Your task to perform on an android device: Open calendar and show me the first week of next month Image 0: 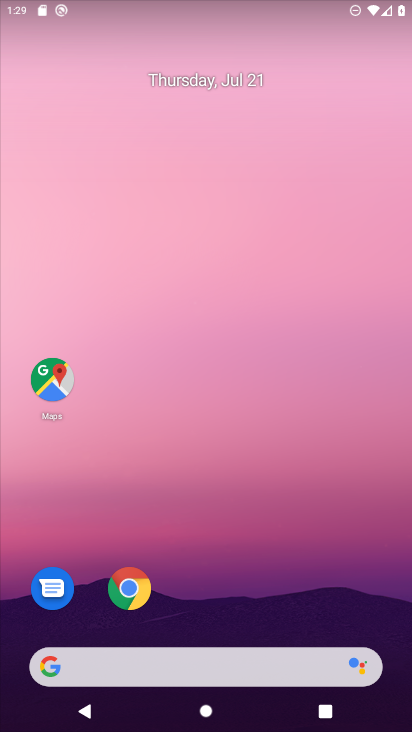
Step 0: click (218, 66)
Your task to perform on an android device: Open calendar and show me the first week of next month Image 1: 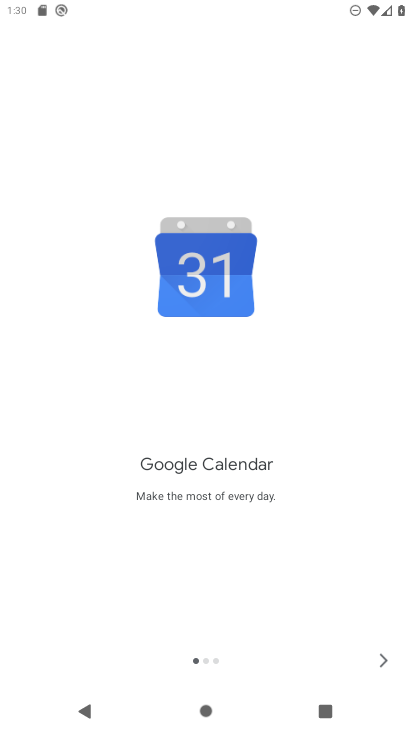
Step 1: click (393, 659)
Your task to perform on an android device: Open calendar and show me the first week of next month Image 2: 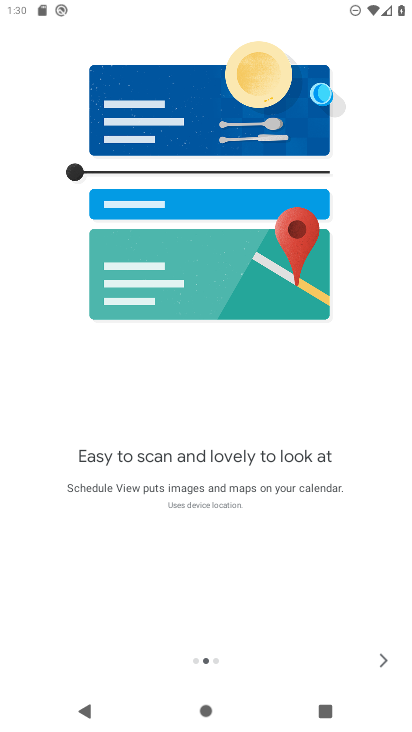
Step 2: click (389, 659)
Your task to perform on an android device: Open calendar and show me the first week of next month Image 3: 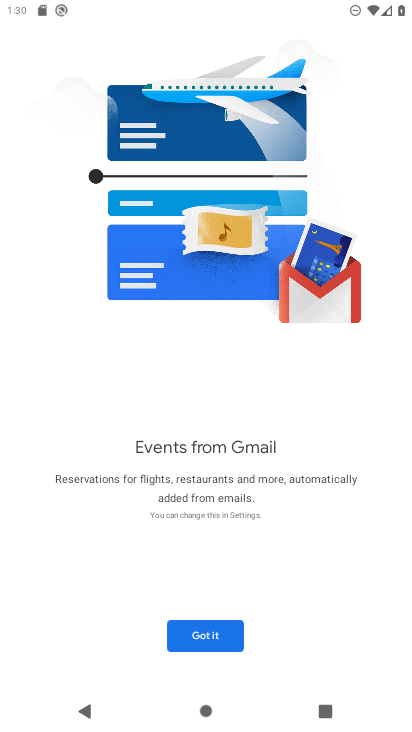
Step 3: click (389, 659)
Your task to perform on an android device: Open calendar and show me the first week of next month Image 4: 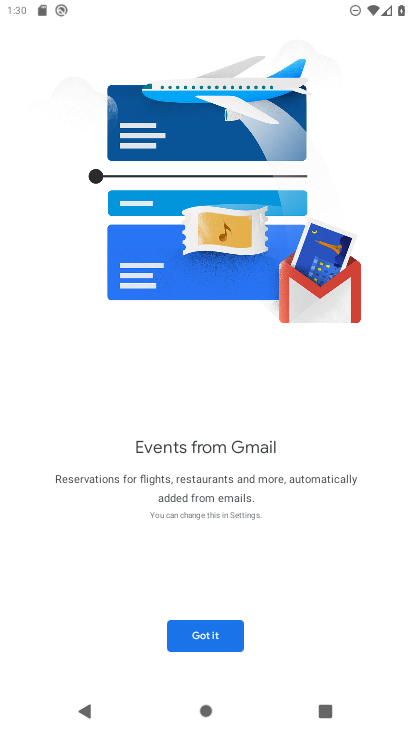
Step 4: click (224, 628)
Your task to perform on an android device: Open calendar and show me the first week of next month Image 5: 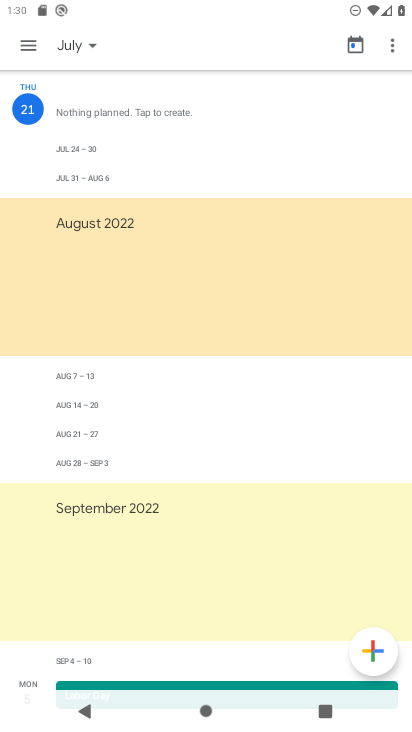
Step 5: click (72, 40)
Your task to perform on an android device: Open calendar and show me the first week of next month Image 6: 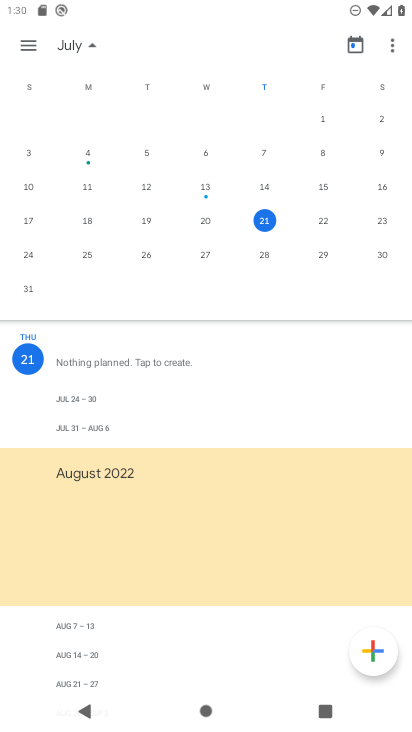
Step 6: drag from (244, 204) to (27, 173)
Your task to perform on an android device: Open calendar and show me the first week of next month Image 7: 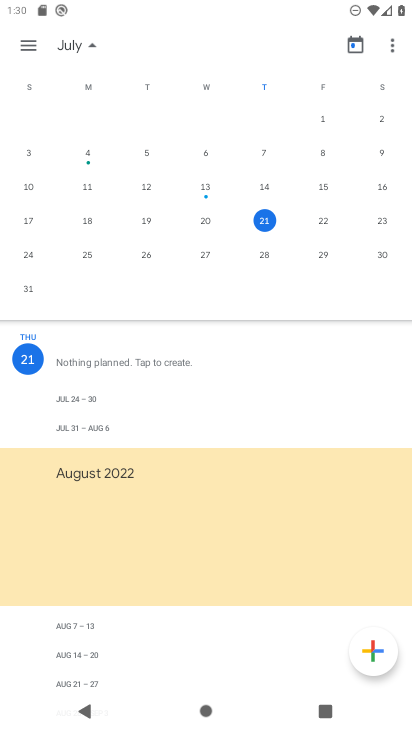
Step 7: drag from (351, 203) to (26, 190)
Your task to perform on an android device: Open calendar and show me the first week of next month Image 8: 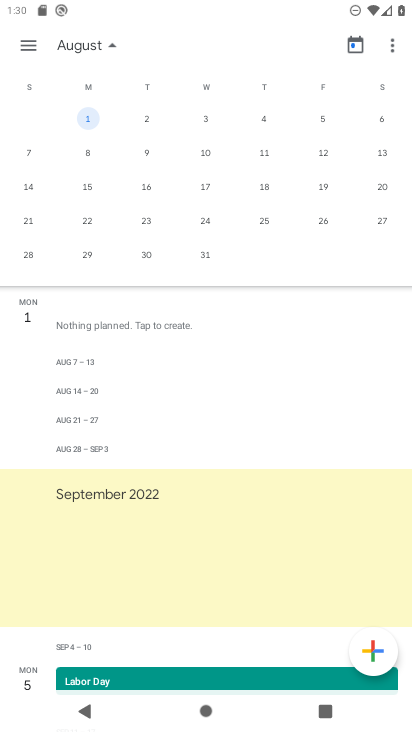
Step 8: click (145, 118)
Your task to perform on an android device: Open calendar and show me the first week of next month Image 9: 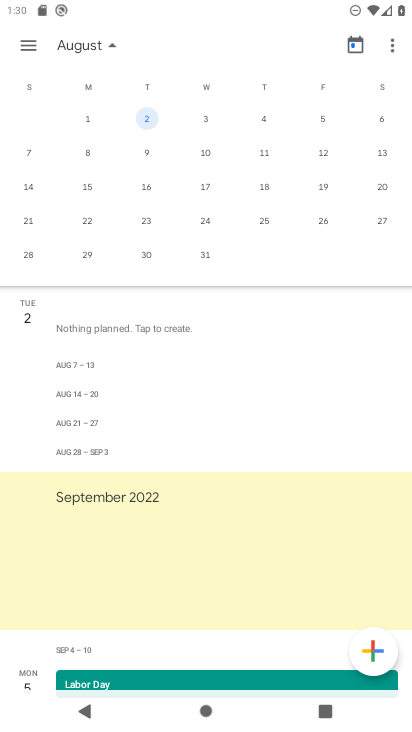
Step 9: click (25, 47)
Your task to perform on an android device: Open calendar and show me the first week of next month Image 10: 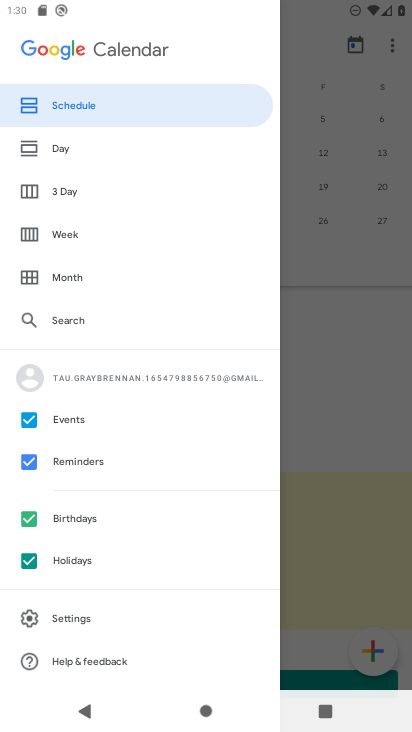
Step 10: click (70, 235)
Your task to perform on an android device: Open calendar and show me the first week of next month Image 11: 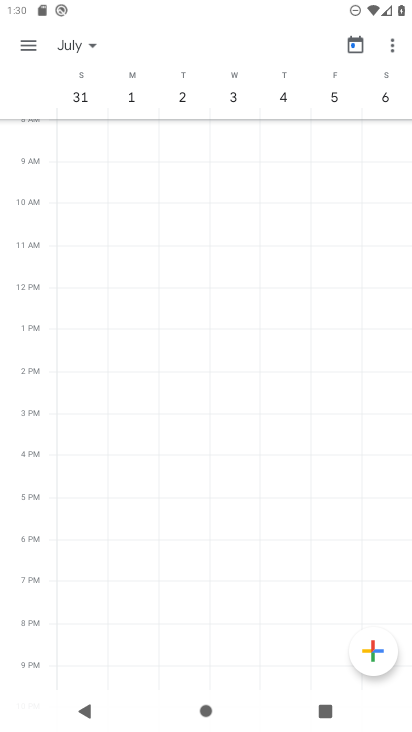
Step 11: task complete